Your task to perform on an android device: Search for vegetarian restaurants on Maps Image 0: 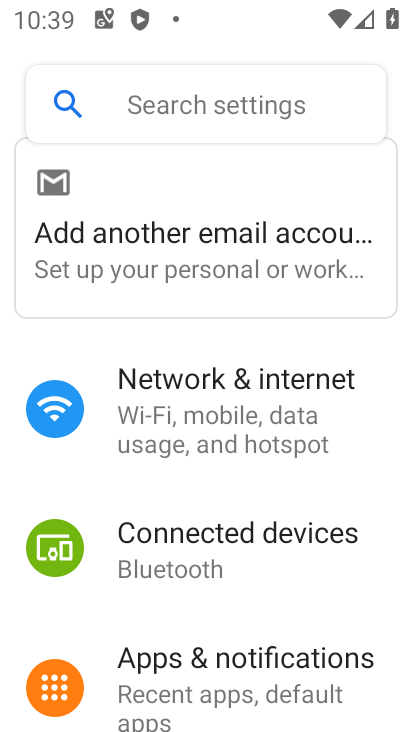
Step 0: press home button
Your task to perform on an android device: Search for vegetarian restaurants on Maps Image 1: 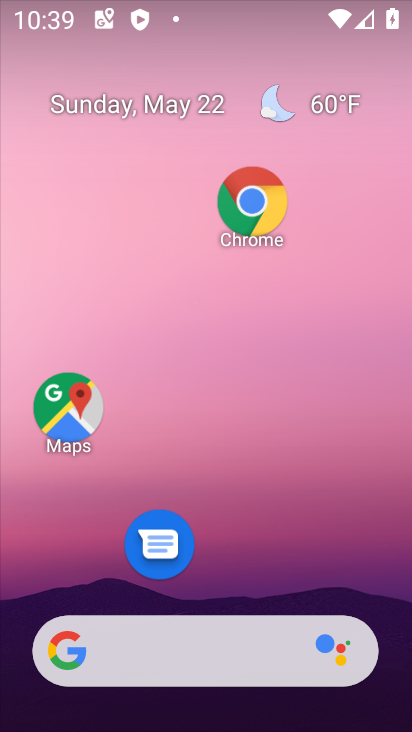
Step 1: click (64, 402)
Your task to perform on an android device: Search for vegetarian restaurants on Maps Image 2: 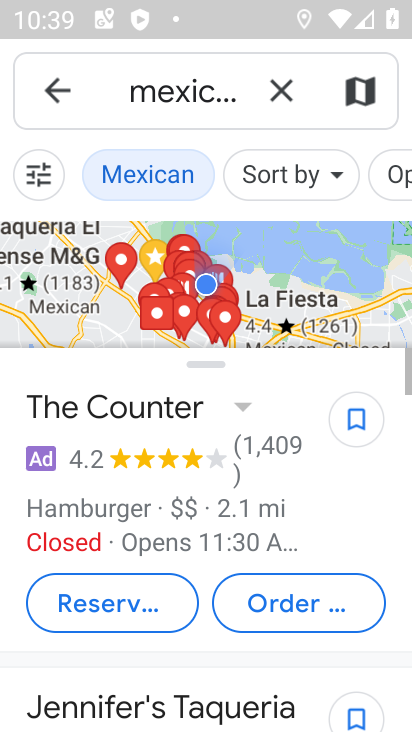
Step 2: click (283, 95)
Your task to perform on an android device: Search for vegetarian restaurants on Maps Image 3: 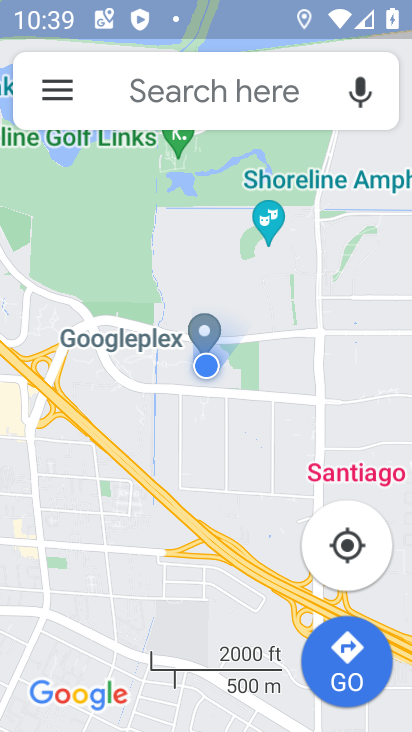
Step 3: click (152, 102)
Your task to perform on an android device: Search for vegetarian restaurants on Maps Image 4: 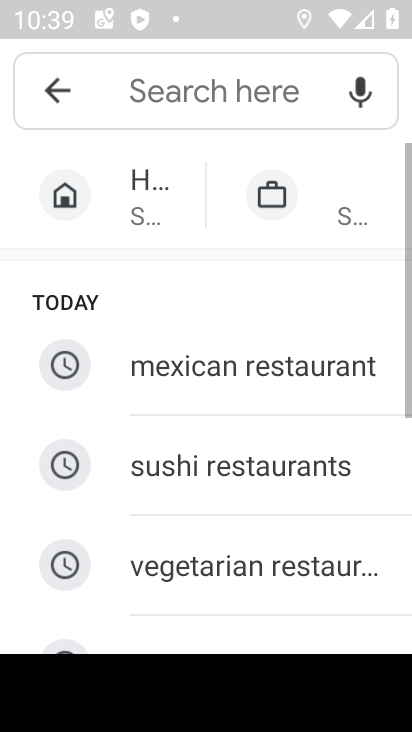
Step 4: click (191, 573)
Your task to perform on an android device: Search for vegetarian restaurants on Maps Image 5: 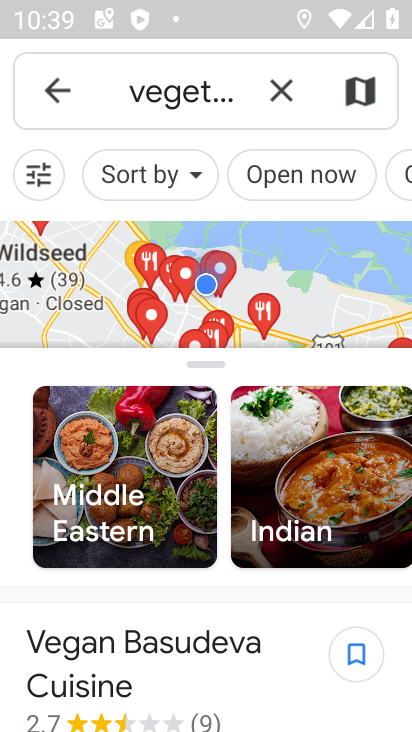
Step 5: task complete